Your task to perform on an android device: check battery use Image 0: 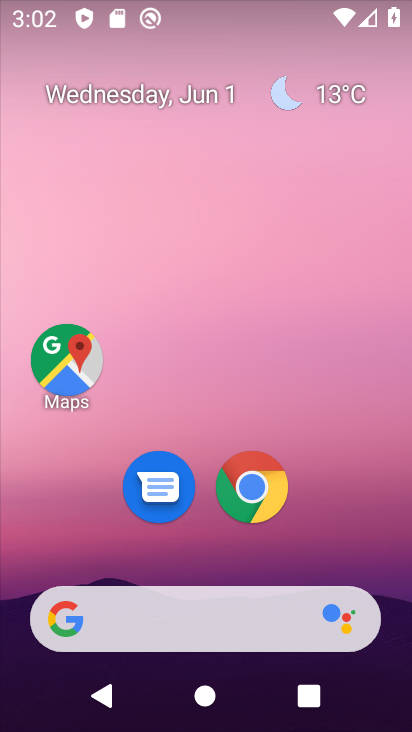
Step 0: drag from (394, 559) to (288, 260)
Your task to perform on an android device: check battery use Image 1: 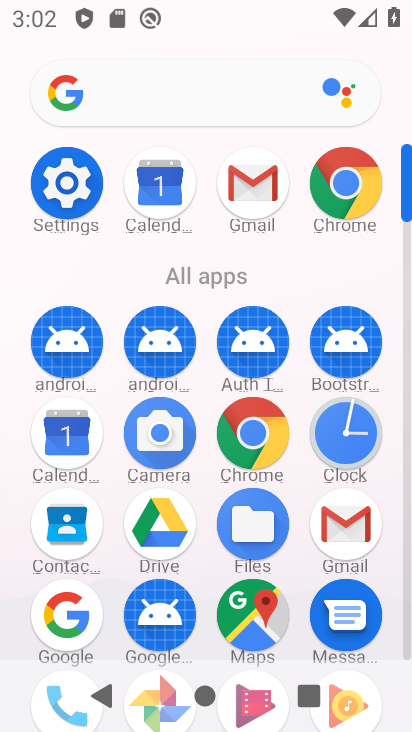
Step 1: click (68, 197)
Your task to perform on an android device: check battery use Image 2: 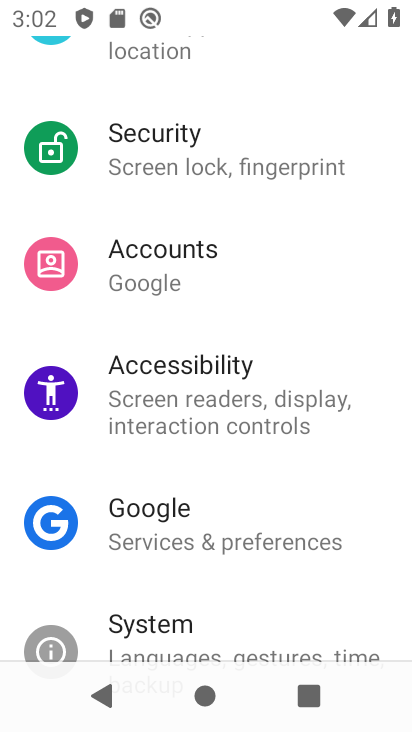
Step 2: drag from (230, 222) to (237, 526)
Your task to perform on an android device: check battery use Image 3: 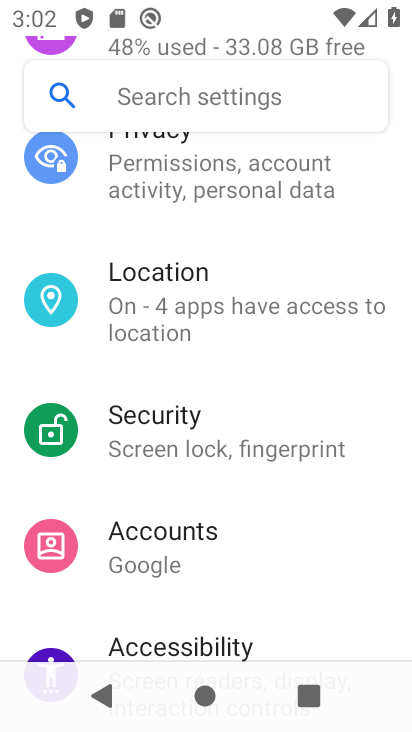
Step 3: drag from (257, 157) to (276, 529)
Your task to perform on an android device: check battery use Image 4: 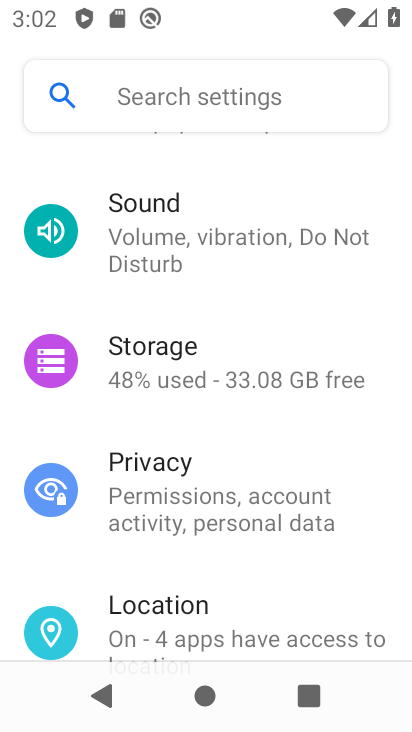
Step 4: drag from (241, 286) to (249, 571)
Your task to perform on an android device: check battery use Image 5: 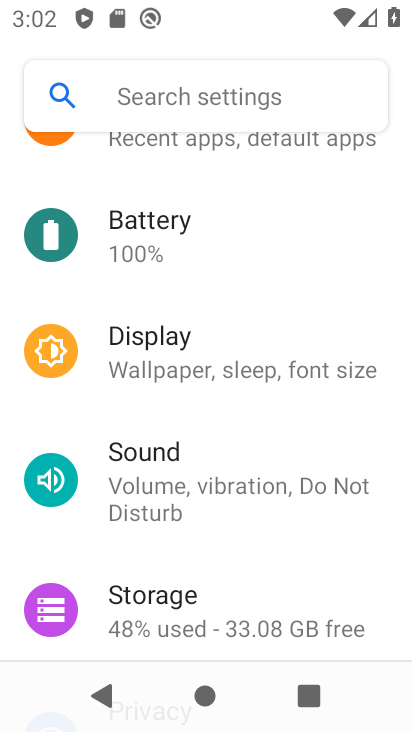
Step 5: click (195, 251)
Your task to perform on an android device: check battery use Image 6: 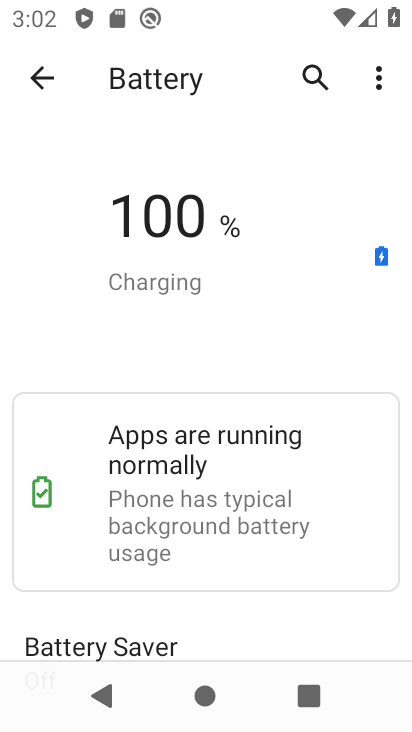
Step 6: click (368, 91)
Your task to perform on an android device: check battery use Image 7: 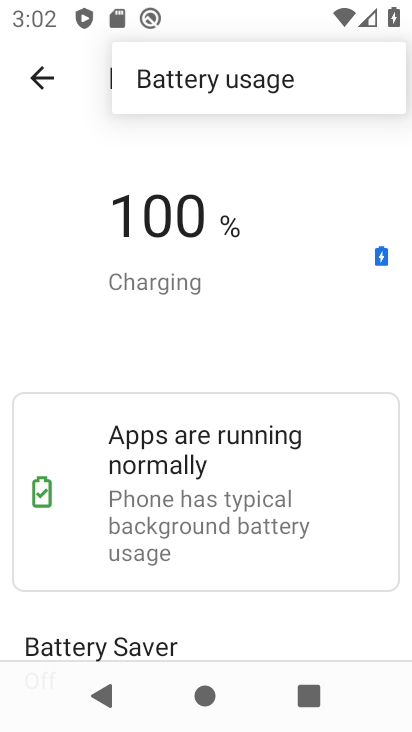
Step 7: click (268, 91)
Your task to perform on an android device: check battery use Image 8: 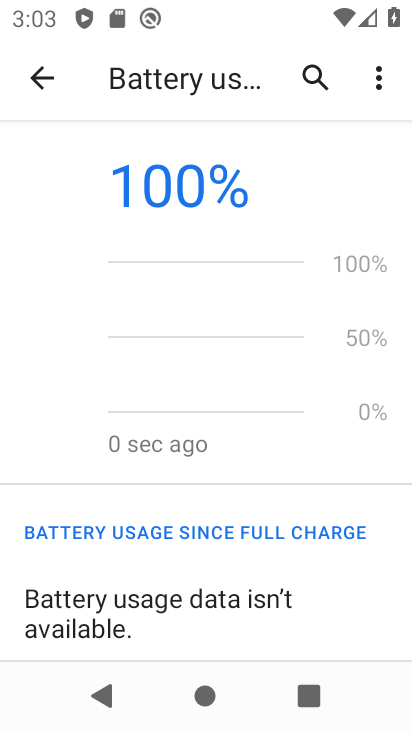
Step 8: task complete